Your task to perform on an android device: show emergency info Image 0: 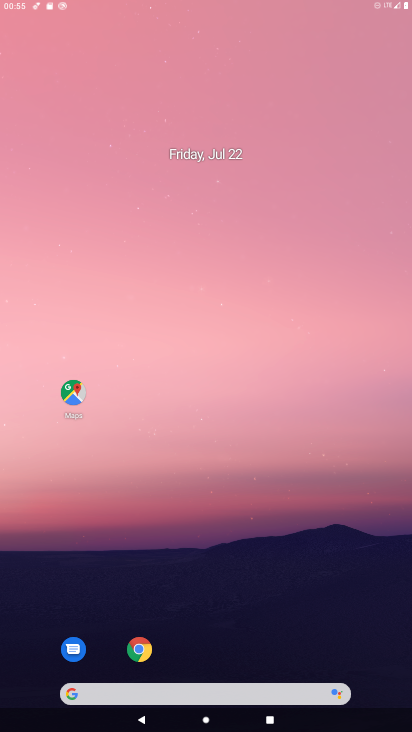
Step 0: click (221, 207)
Your task to perform on an android device: show emergency info Image 1: 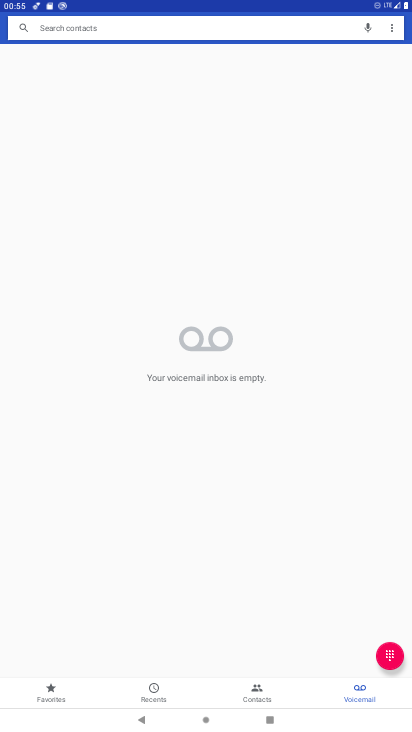
Step 1: press home button
Your task to perform on an android device: show emergency info Image 2: 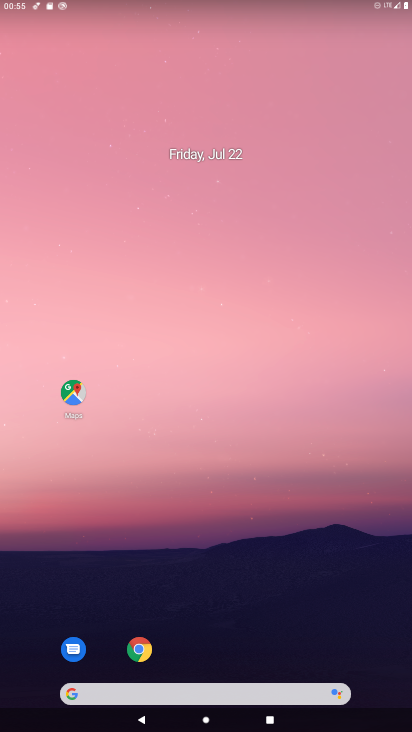
Step 2: drag from (238, 718) to (227, 308)
Your task to perform on an android device: show emergency info Image 3: 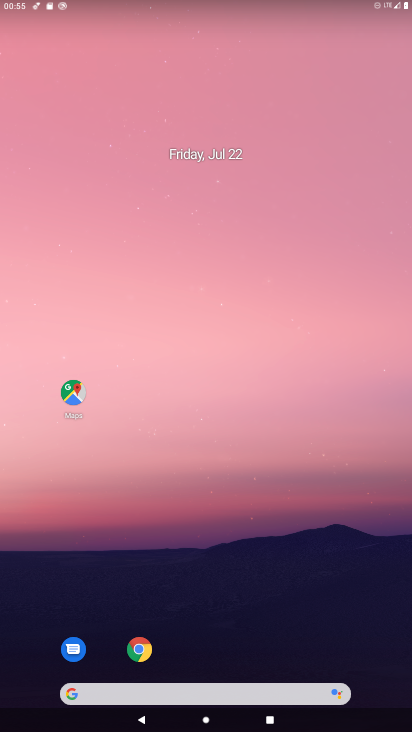
Step 3: drag from (228, 726) to (263, 241)
Your task to perform on an android device: show emergency info Image 4: 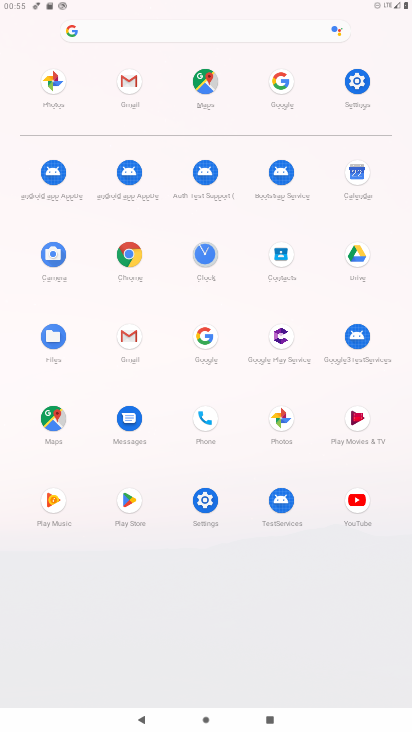
Step 4: click (354, 83)
Your task to perform on an android device: show emergency info Image 5: 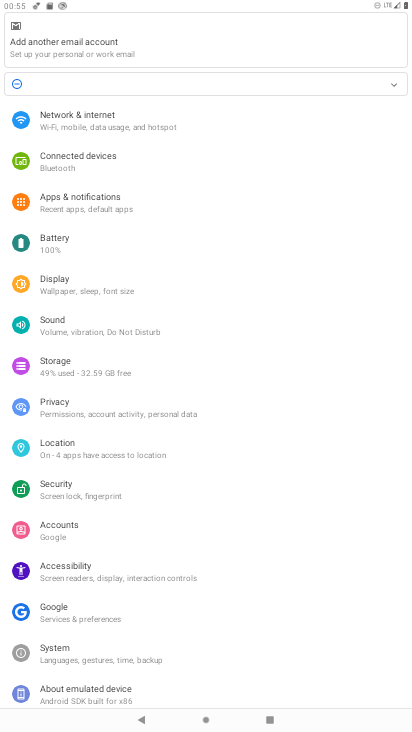
Step 5: drag from (144, 596) to (144, 334)
Your task to perform on an android device: show emergency info Image 6: 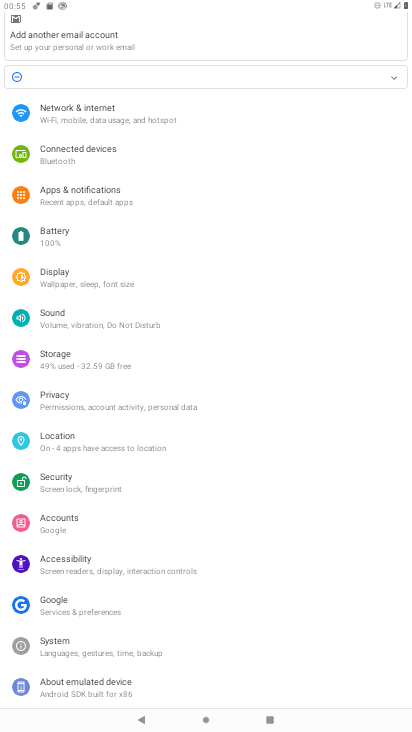
Step 6: click (98, 685)
Your task to perform on an android device: show emergency info Image 7: 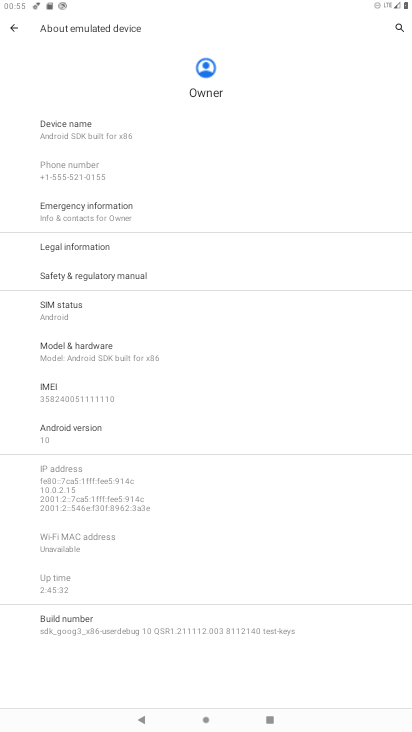
Step 7: click (103, 210)
Your task to perform on an android device: show emergency info Image 8: 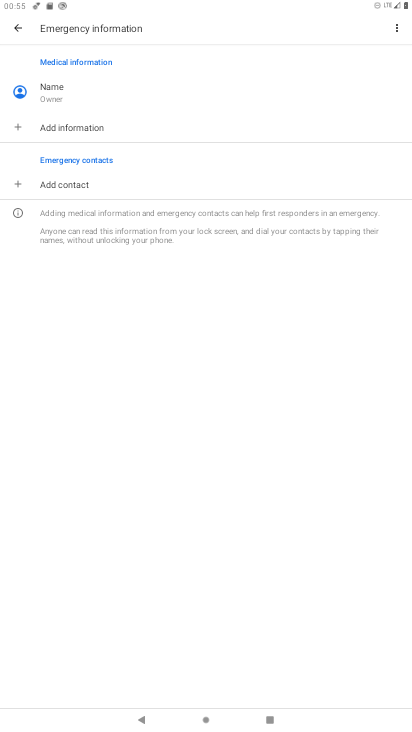
Step 8: task complete